Your task to perform on an android device: open app "Indeed Job Search" (install if not already installed) and enter user name: "quixotic@inbox.com" and password: "microphones" Image 0: 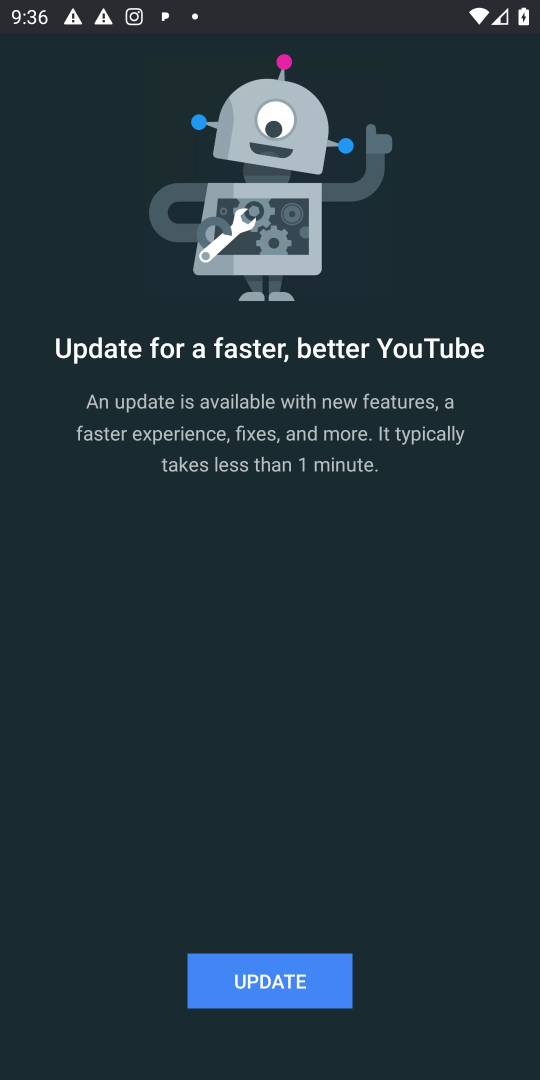
Step 0: press home button
Your task to perform on an android device: open app "Indeed Job Search" (install if not already installed) and enter user name: "quixotic@inbox.com" and password: "microphones" Image 1: 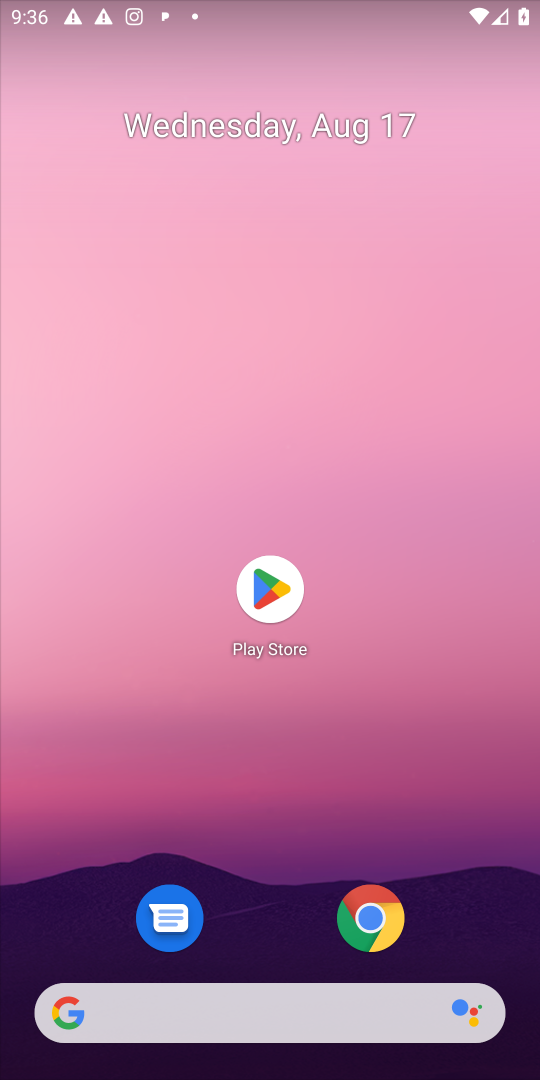
Step 1: click (275, 600)
Your task to perform on an android device: open app "Indeed Job Search" (install if not already installed) and enter user name: "quixotic@inbox.com" and password: "microphones" Image 2: 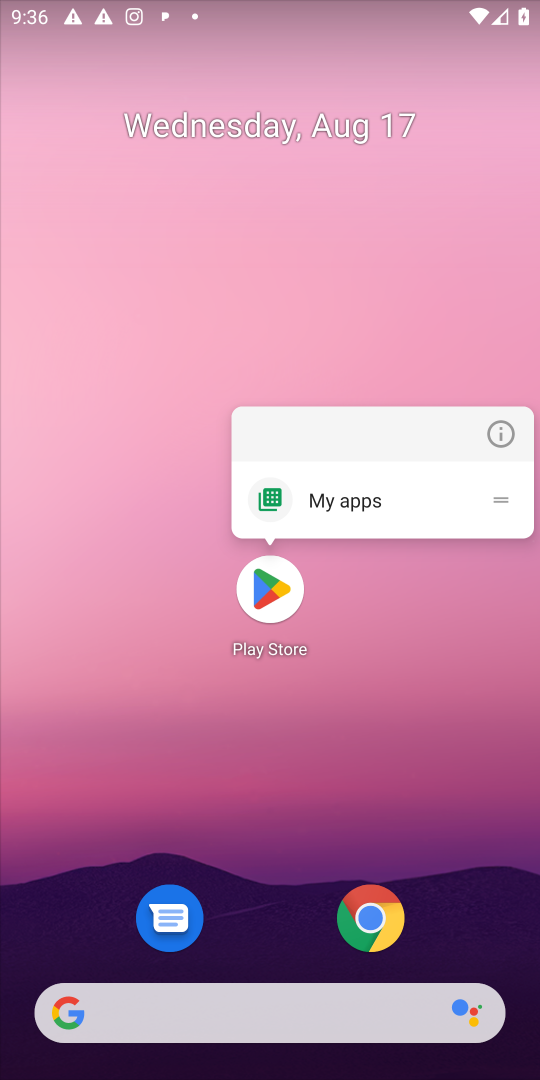
Step 2: click (275, 602)
Your task to perform on an android device: open app "Indeed Job Search" (install if not already installed) and enter user name: "quixotic@inbox.com" and password: "microphones" Image 3: 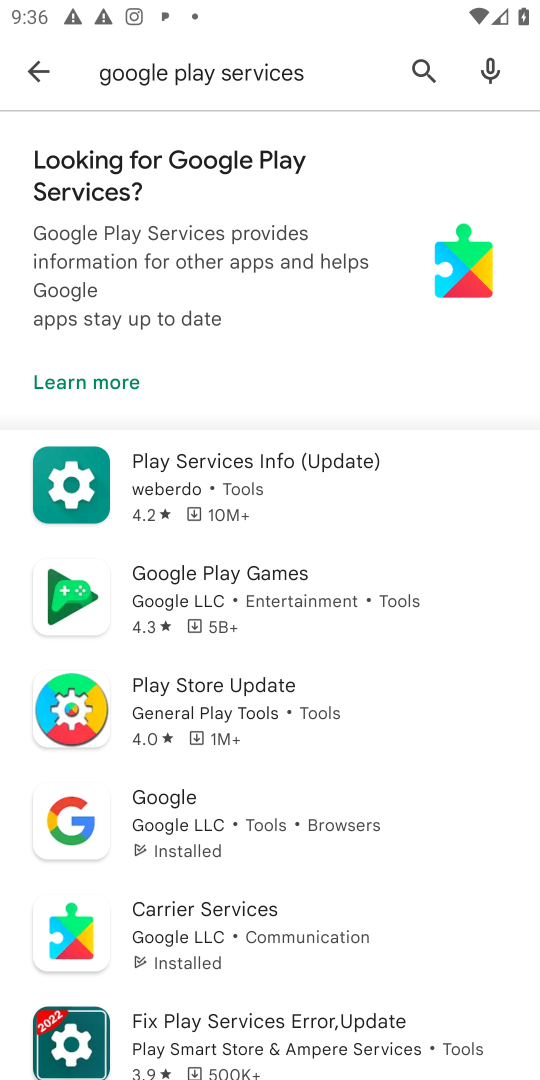
Step 3: click (424, 69)
Your task to perform on an android device: open app "Indeed Job Search" (install if not already installed) and enter user name: "quixotic@inbox.com" and password: "microphones" Image 4: 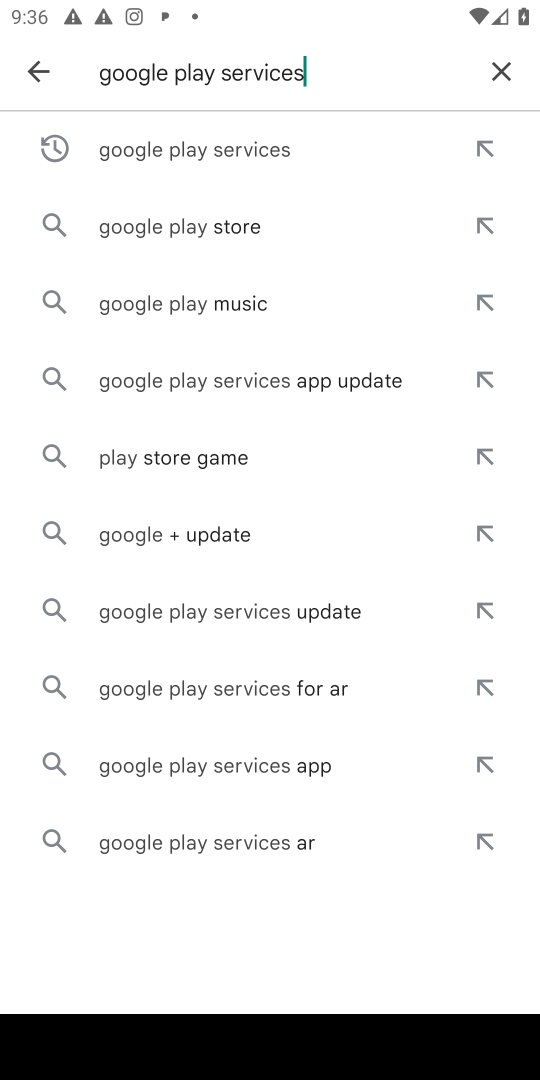
Step 4: click (507, 68)
Your task to perform on an android device: open app "Indeed Job Search" (install if not already installed) and enter user name: "quixotic@inbox.com" and password: "microphones" Image 5: 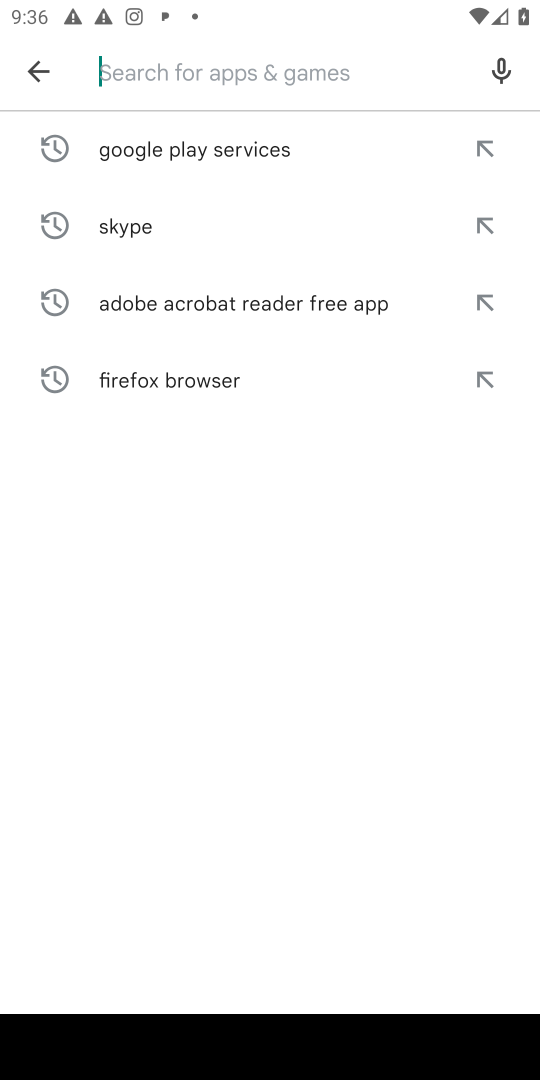
Step 5: type "Indeed Job Search"
Your task to perform on an android device: open app "Indeed Job Search" (install if not already installed) and enter user name: "quixotic@inbox.com" and password: "microphones" Image 6: 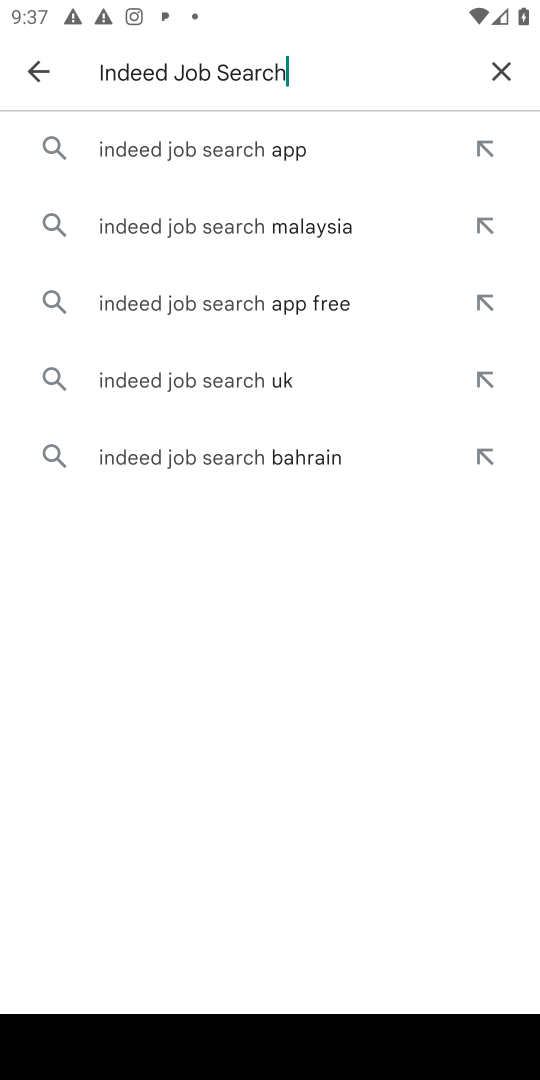
Step 6: click (259, 141)
Your task to perform on an android device: open app "Indeed Job Search" (install if not already installed) and enter user name: "quixotic@inbox.com" and password: "microphones" Image 7: 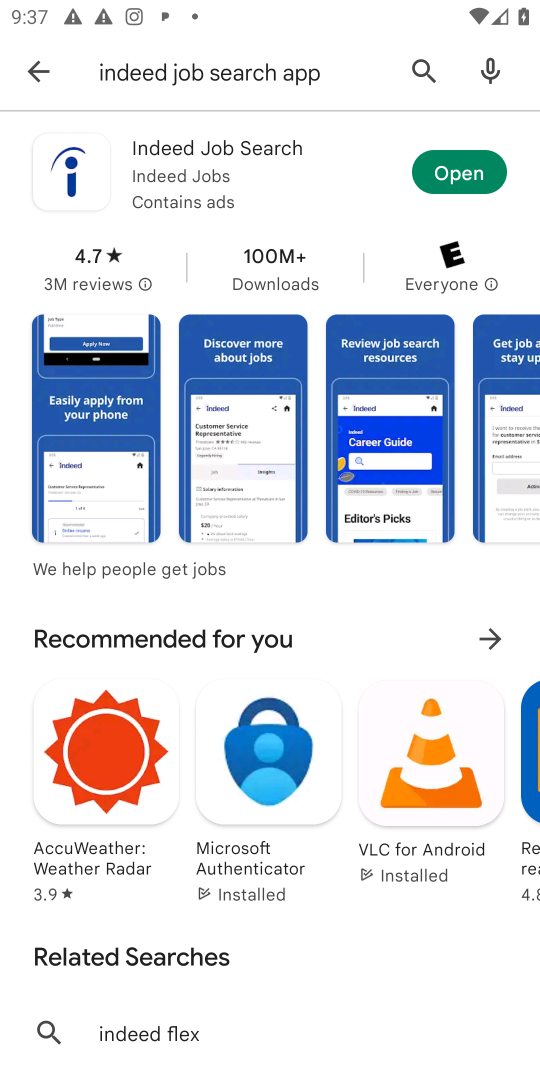
Step 7: click (438, 175)
Your task to perform on an android device: open app "Indeed Job Search" (install if not already installed) and enter user name: "quixotic@inbox.com" and password: "microphones" Image 8: 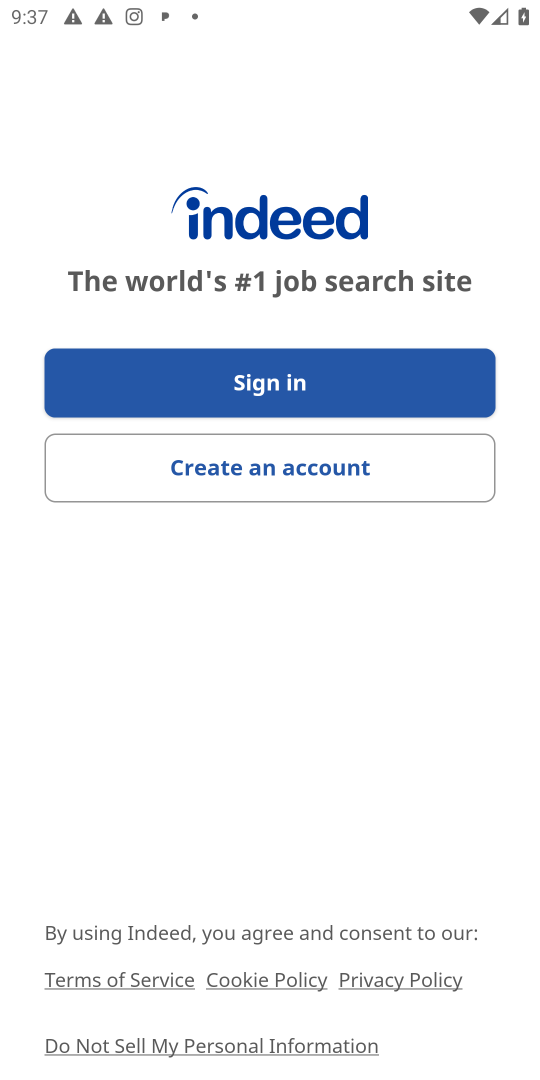
Step 8: click (295, 386)
Your task to perform on an android device: open app "Indeed Job Search" (install if not already installed) and enter user name: "quixotic@inbox.com" and password: "microphones" Image 9: 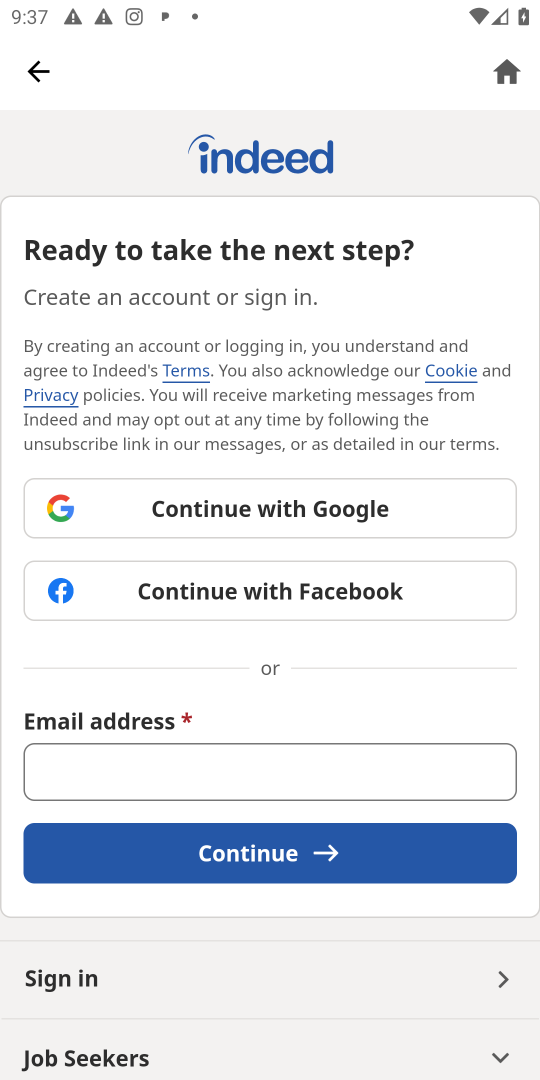
Step 9: task complete